Your task to perform on an android device: Open Maps and search for coffee Image 0: 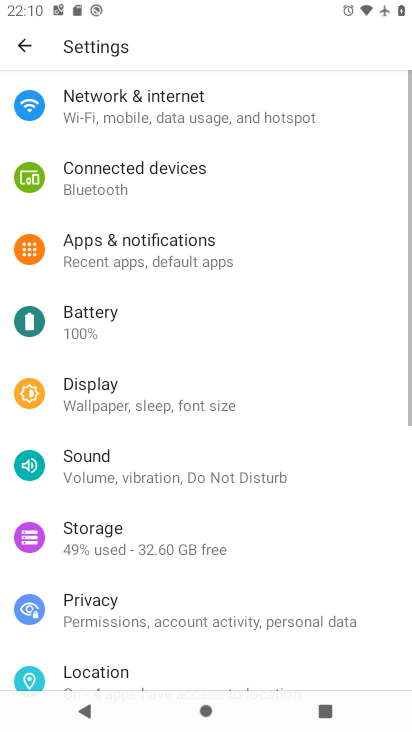
Step 0: press home button
Your task to perform on an android device: Open Maps and search for coffee Image 1: 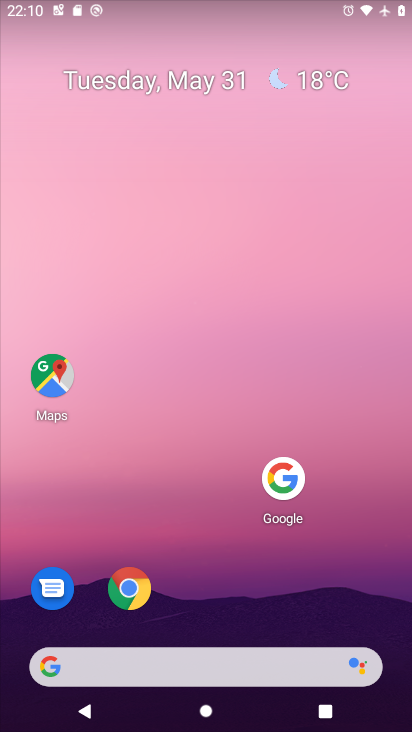
Step 1: click (46, 382)
Your task to perform on an android device: Open Maps and search for coffee Image 2: 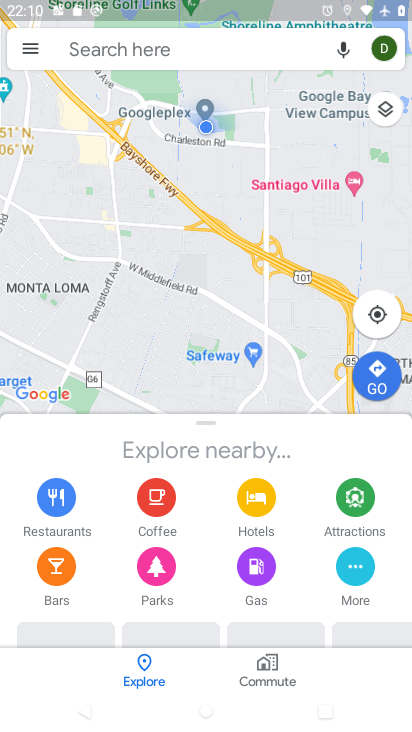
Step 2: click (175, 49)
Your task to perform on an android device: Open Maps and search for coffee Image 3: 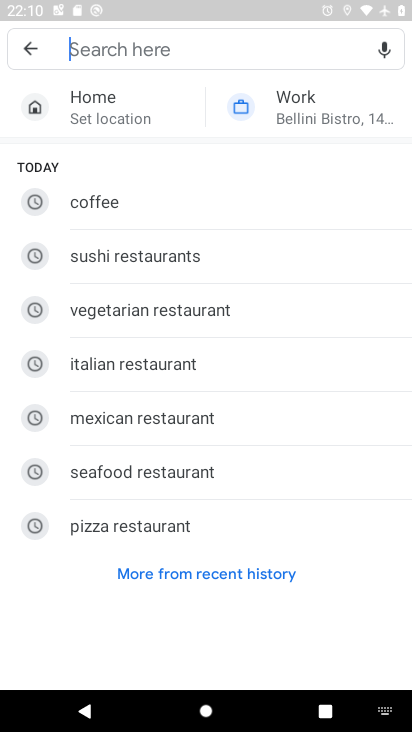
Step 3: click (81, 207)
Your task to perform on an android device: Open Maps and search for coffee Image 4: 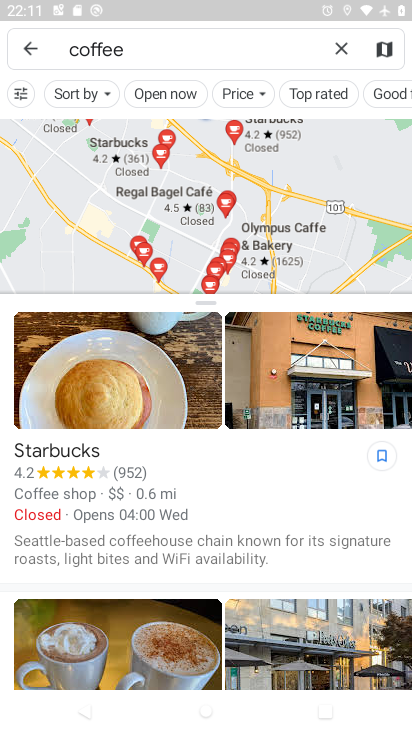
Step 4: task complete